Your task to perform on an android device: turn off priority inbox in the gmail app Image 0: 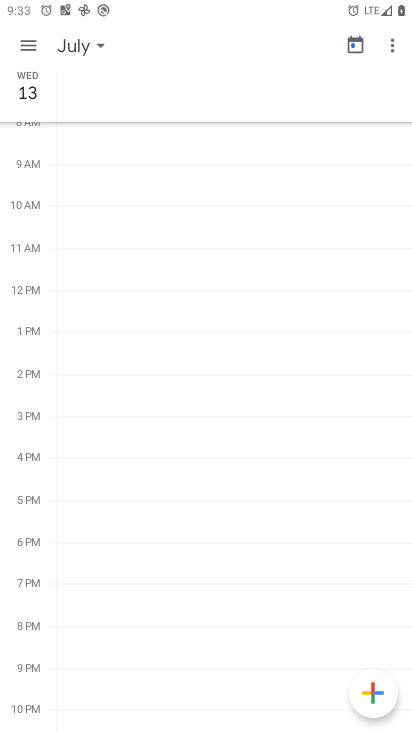
Step 0: press home button
Your task to perform on an android device: turn off priority inbox in the gmail app Image 1: 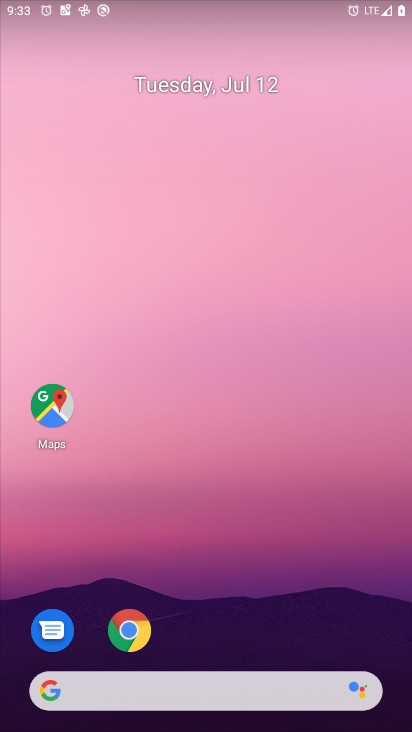
Step 1: drag from (298, 618) to (274, 45)
Your task to perform on an android device: turn off priority inbox in the gmail app Image 2: 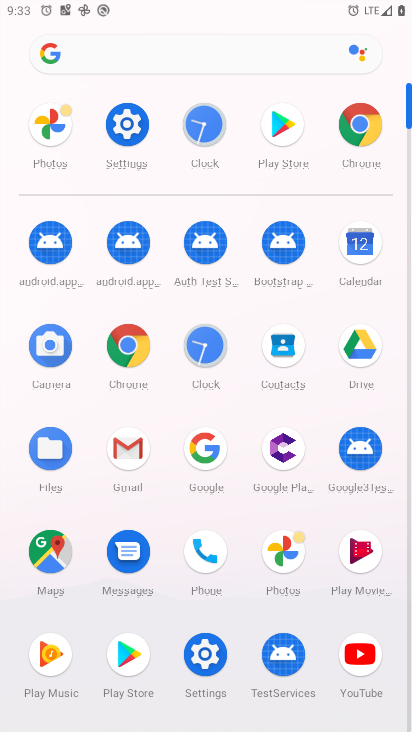
Step 2: click (142, 452)
Your task to perform on an android device: turn off priority inbox in the gmail app Image 3: 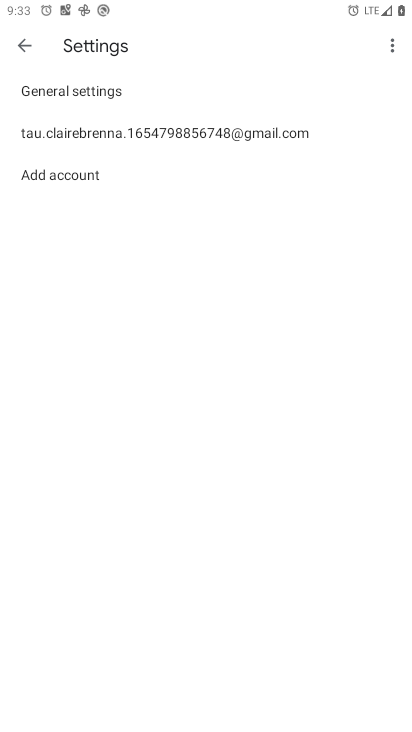
Step 3: click (34, 130)
Your task to perform on an android device: turn off priority inbox in the gmail app Image 4: 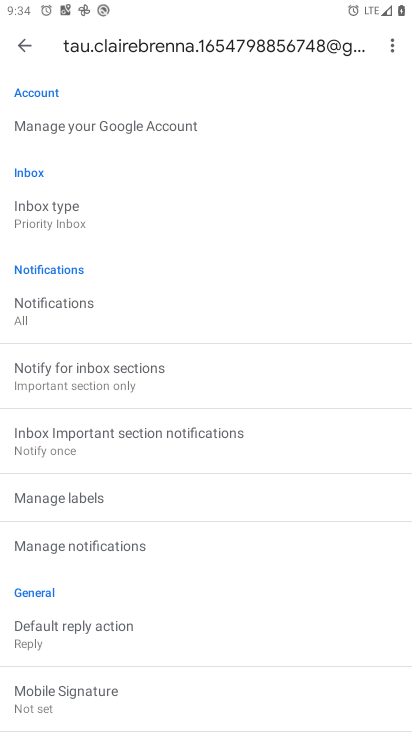
Step 4: click (43, 220)
Your task to perform on an android device: turn off priority inbox in the gmail app Image 5: 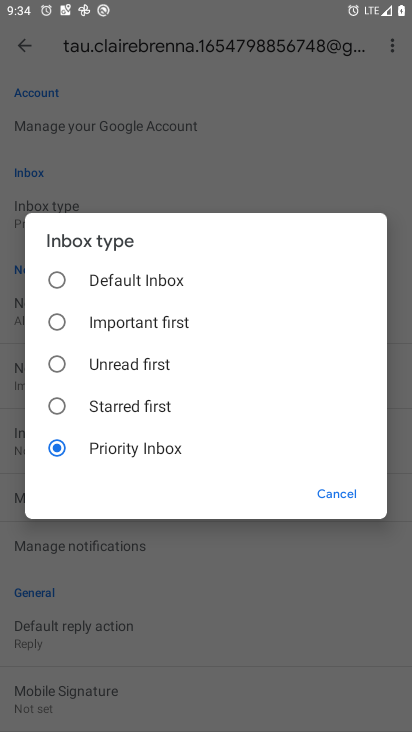
Step 5: click (86, 277)
Your task to perform on an android device: turn off priority inbox in the gmail app Image 6: 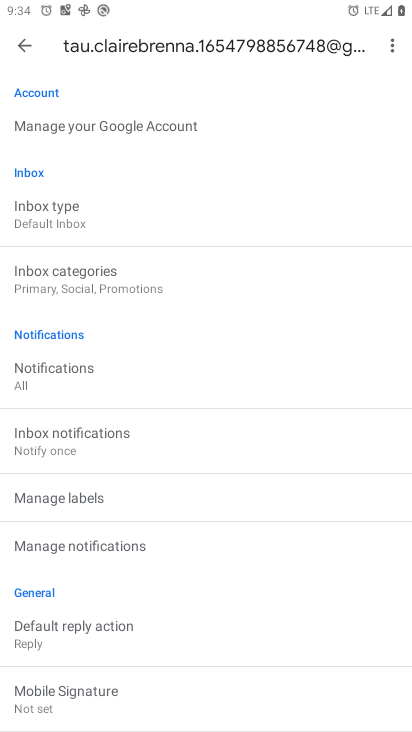
Step 6: task complete